Your task to perform on an android device: turn off javascript in the chrome app Image 0: 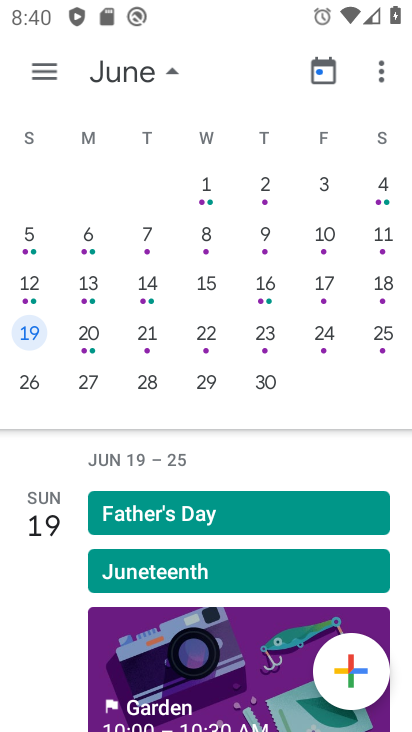
Step 0: press home button
Your task to perform on an android device: turn off javascript in the chrome app Image 1: 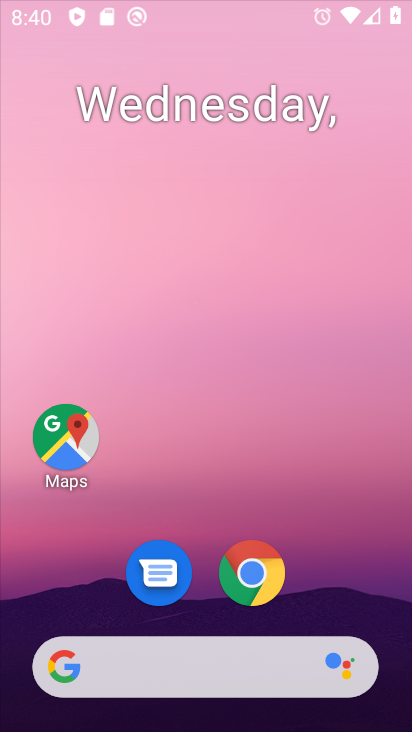
Step 1: drag from (230, 667) to (249, 225)
Your task to perform on an android device: turn off javascript in the chrome app Image 2: 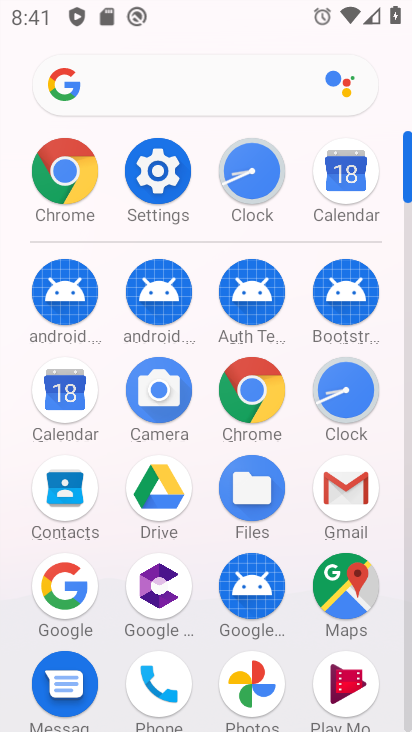
Step 2: click (238, 430)
Your task to perform on an android device: turn off javascript in the chrome app Image 3: 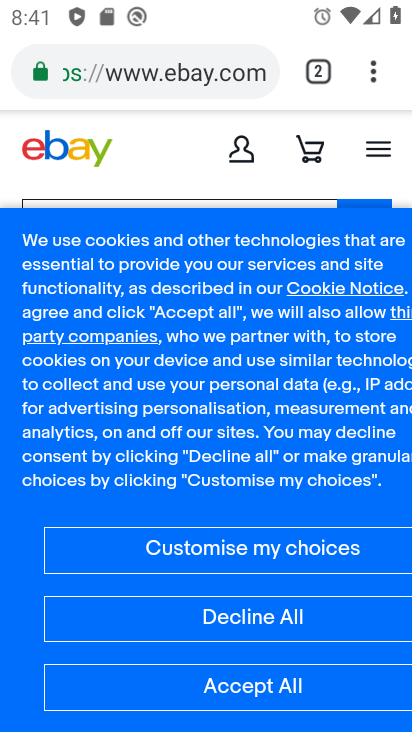
Step 3: click (376, 78)
Your task to perform on an android device: turn off javascript in the chrome app Image 4: 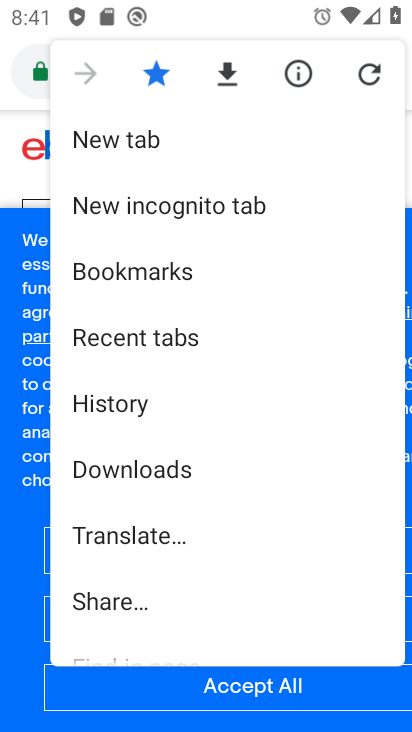
Step 4: drag from (201, 529) to (176, 153)
Your task to perform on an android device: turn off javascript in the chrome app Image 5: 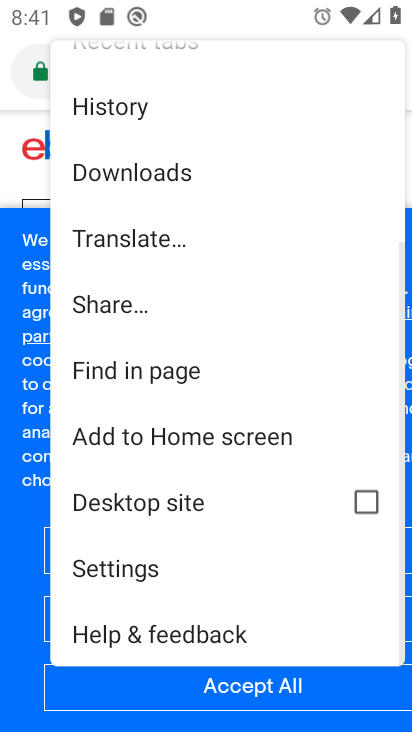
Step 5: click (148, 574)
Your task to perform on an android device: turn off javascript in the chrome app Image 6: 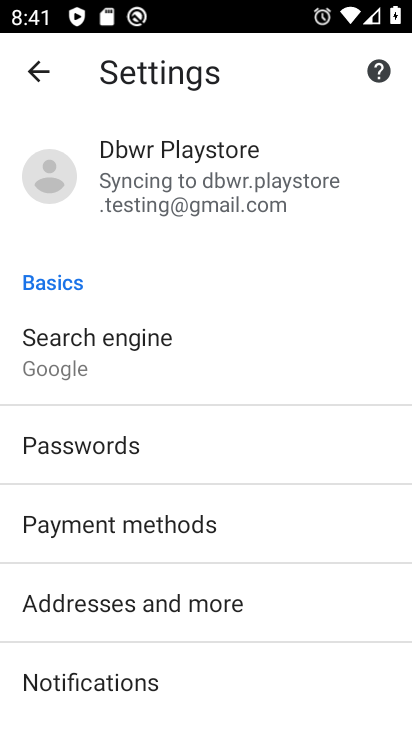
Step 6: drag from (223, 423) to (228, 138)
Your task to perform on an android device: turn off javascript in the chrome app Image 7: 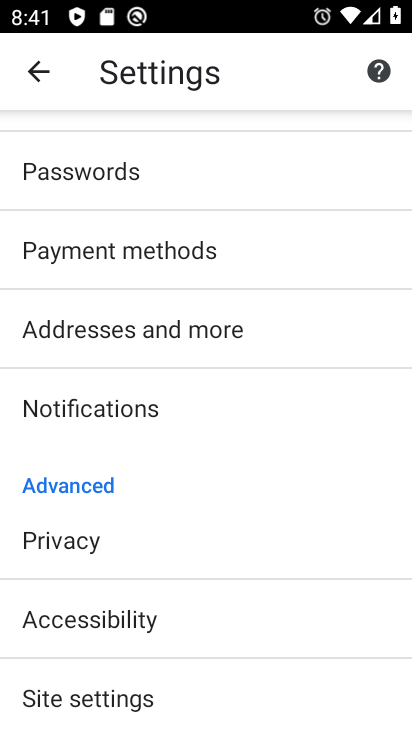
Step 7: drag from (142, 636) to (200, 415)
Your task to perform on an android device: turn off javascript in the chrome app Image 8: 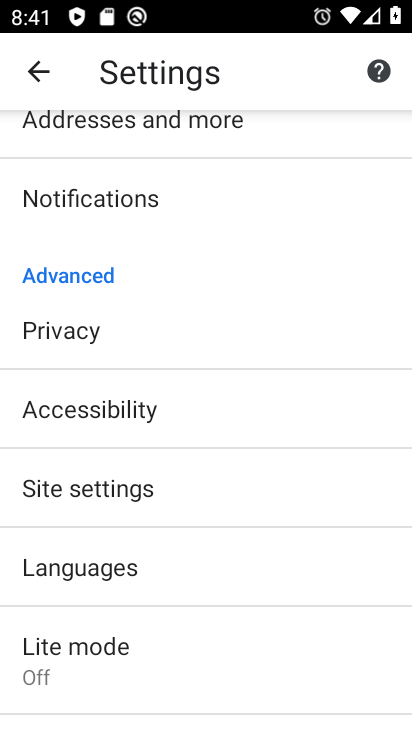
Step 8: click (147, 490)
Your task to perform on an android device: turn off javascript in the chrome app Image 9: 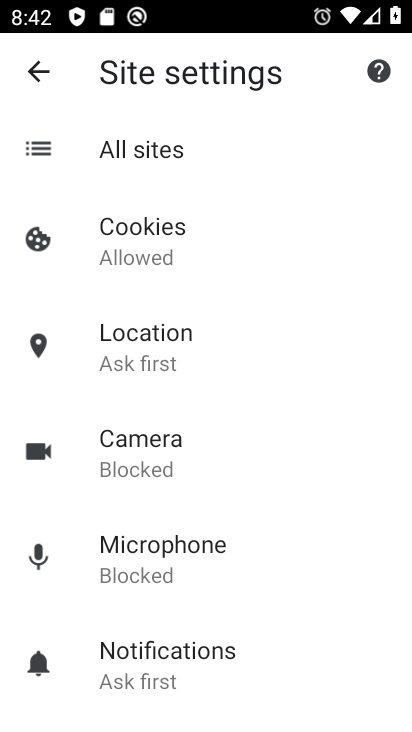
Step 9: drag from (197, 638) to (198, 221)
Your task to perform on an android device: turn off javascript in the chrome app Image 10: 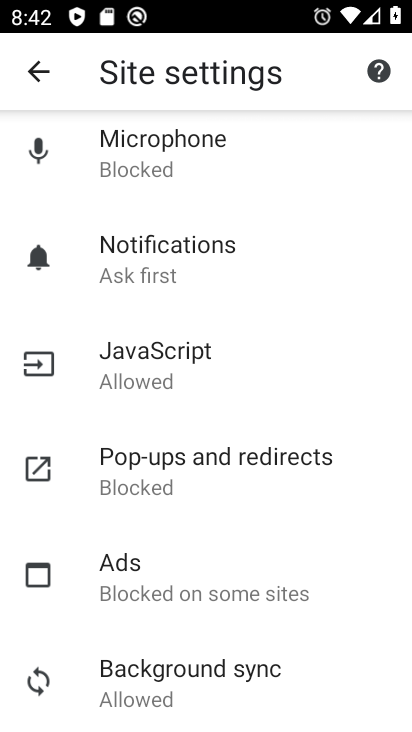
Step 10: drag from (248, 523) to (252, 488)
Your task to perform on an android device: turn off javascript in the chrome app Image 11: 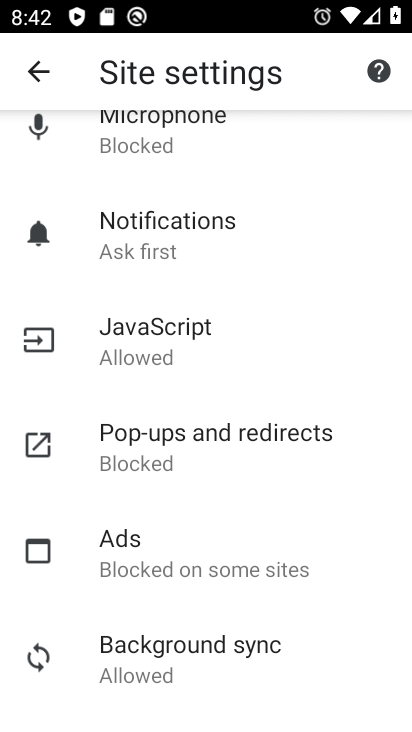
Step 11: click (247, 319)
Your task to perform on an android device: turn off javascript in the chrome app Image 12: 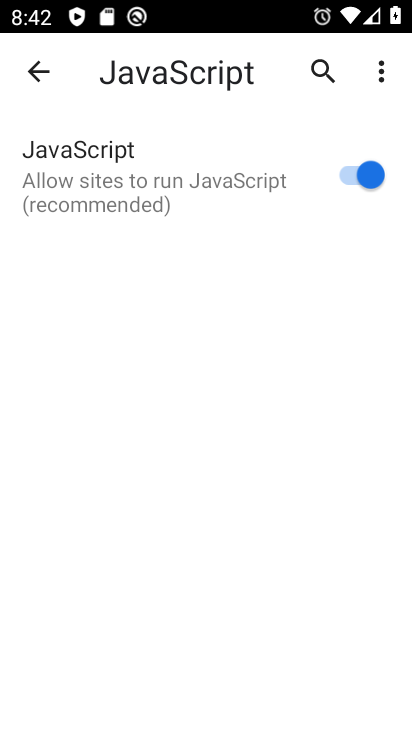
Step 12: click (347, 180)
Your task to perform on an android device: turn off javascript in the chrome app Image 13: 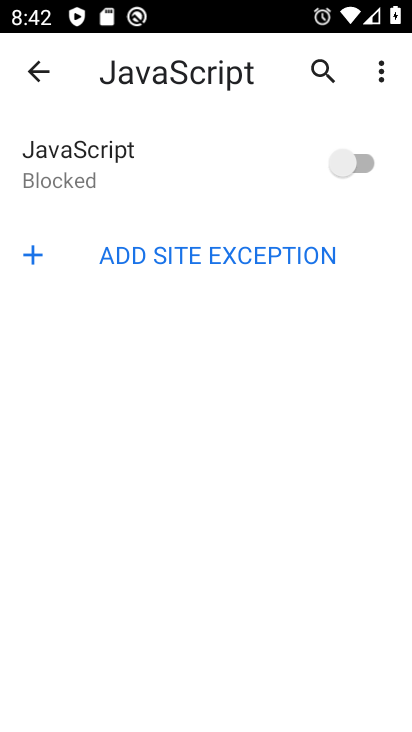
Step 13: task complete